Your task to perform on an android device: delete browsing data in the chrome app Image 0: 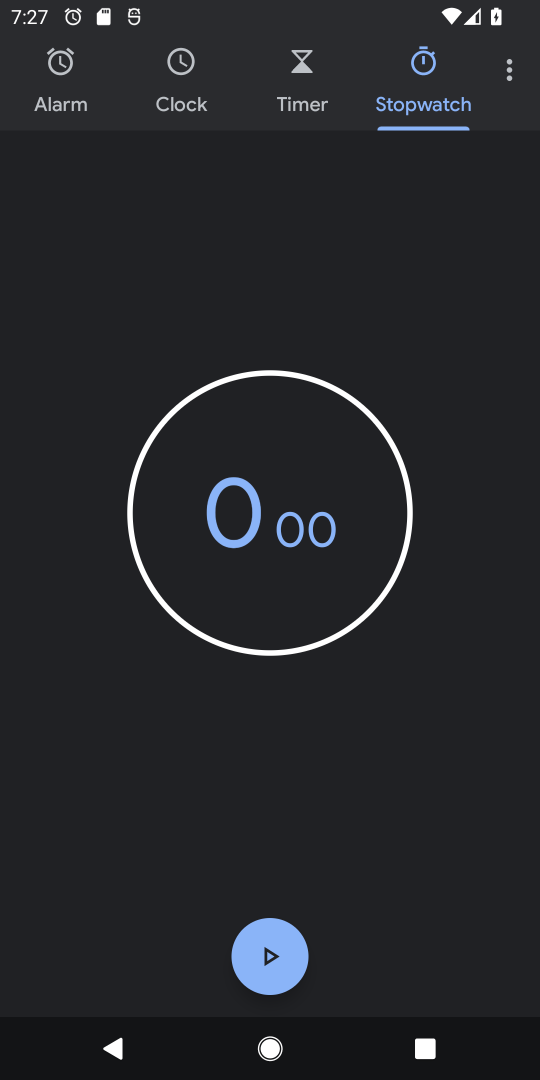
Step 0: press home button
Your task to perform on an android device: delete browsing data in the chrome app Image 1: 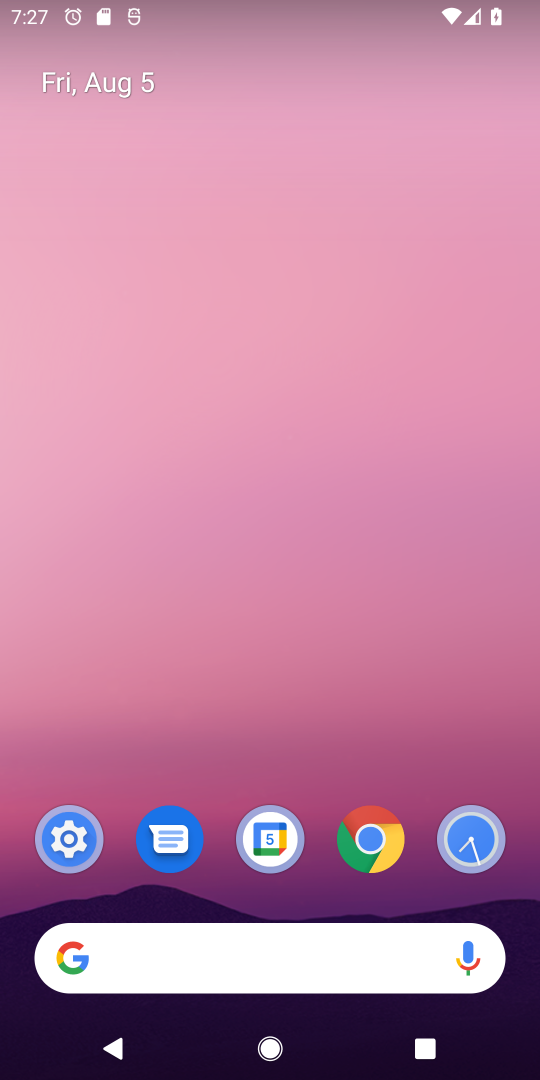
Step 1: click (365, 826)
Your task to perform on an android device: delete browsing data in the chrome app Image 2: 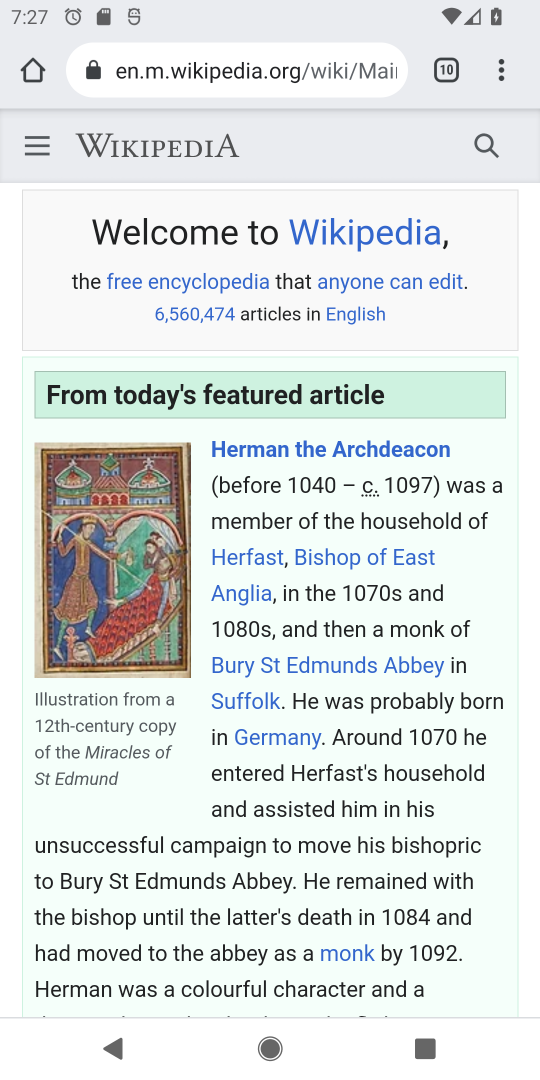
Step 2: click (508, 69)
Your task to perform on an android device: delete browsing data in the chrome app Image 3: 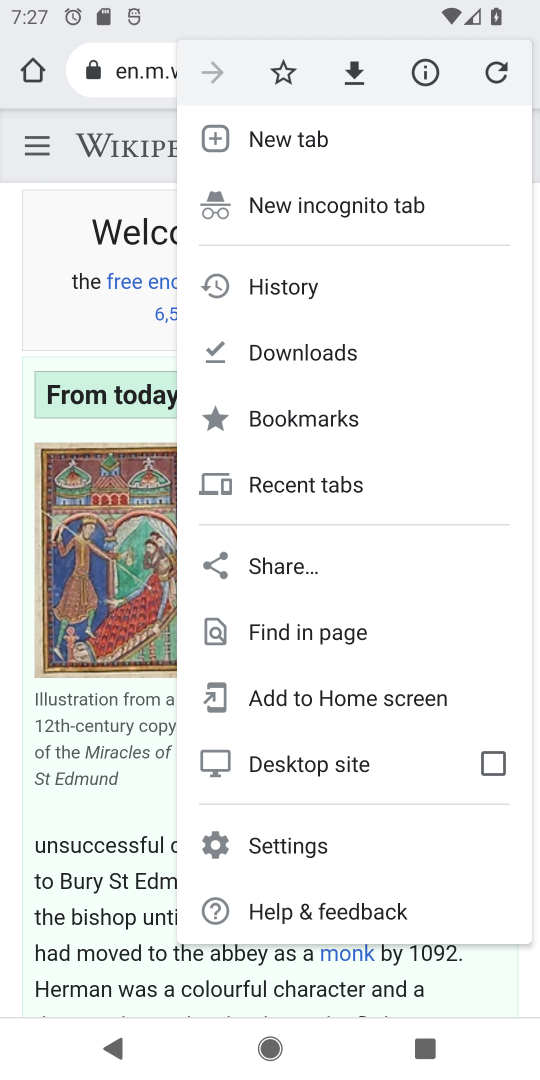
Step 3: click (333, 285)
Your task to perform on an android device: delete browsing data in the chrome app Image 4: 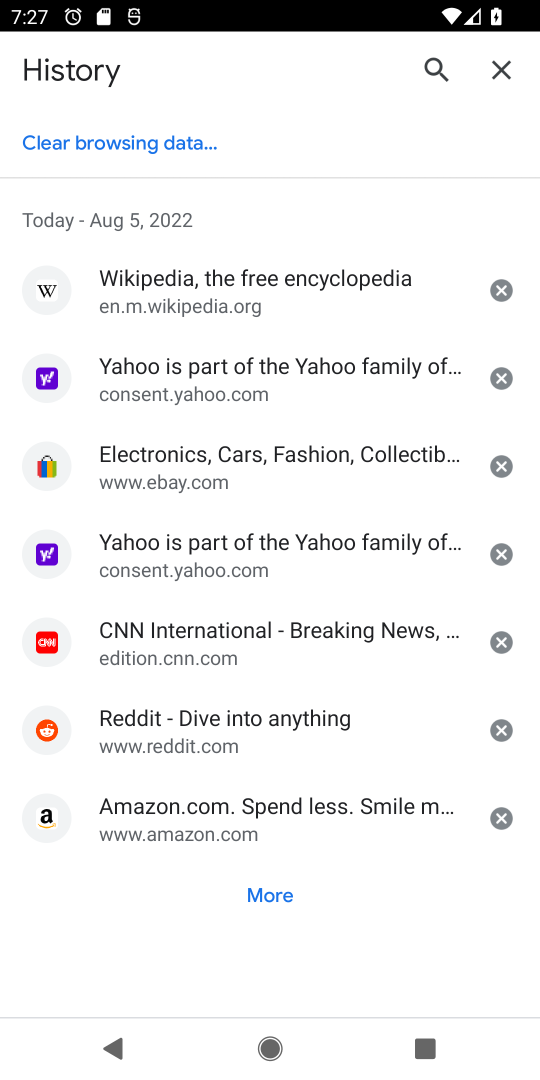
Step 4: click (164, 154)
Your task to perform on an android device: delete browsing data in the chrome app Image 5: 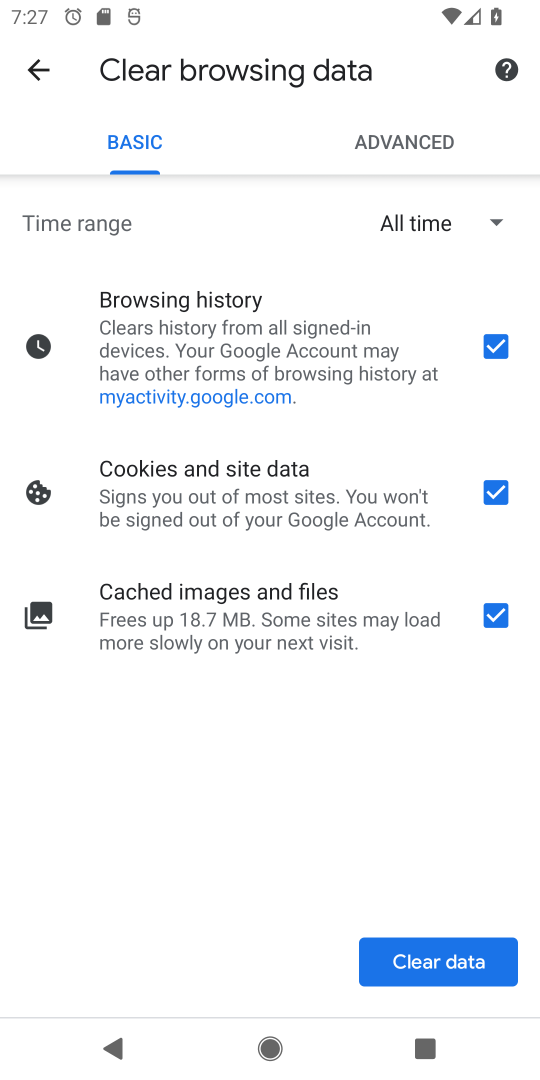
Step 5: click (463, 966)
Your task to perform on an android device: delete browsing data in the chrome app Image 6: 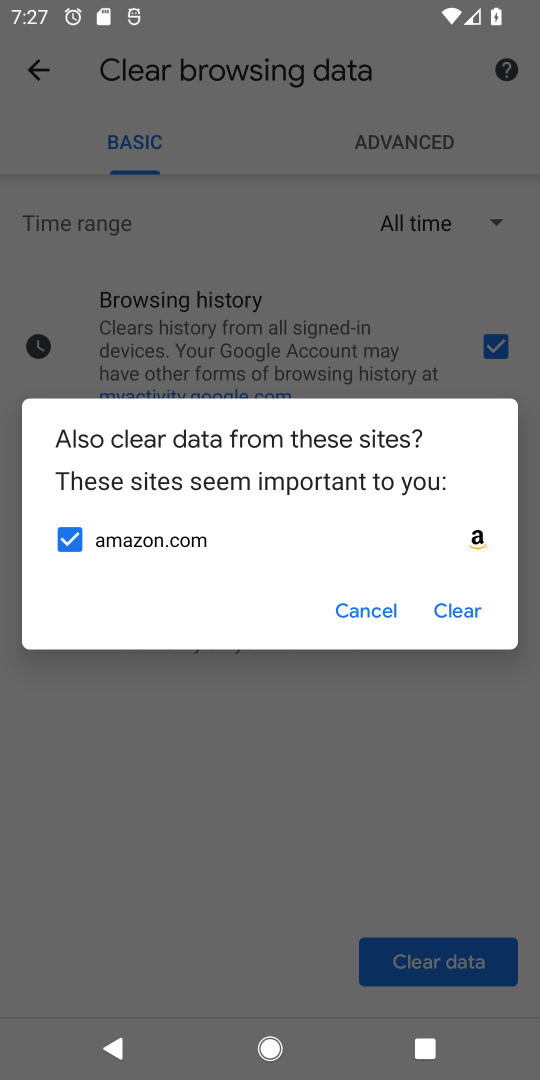
Step 6: click (436, 602)
Your task to perform on an android device: delete browsing data in the chrome app Image 7: 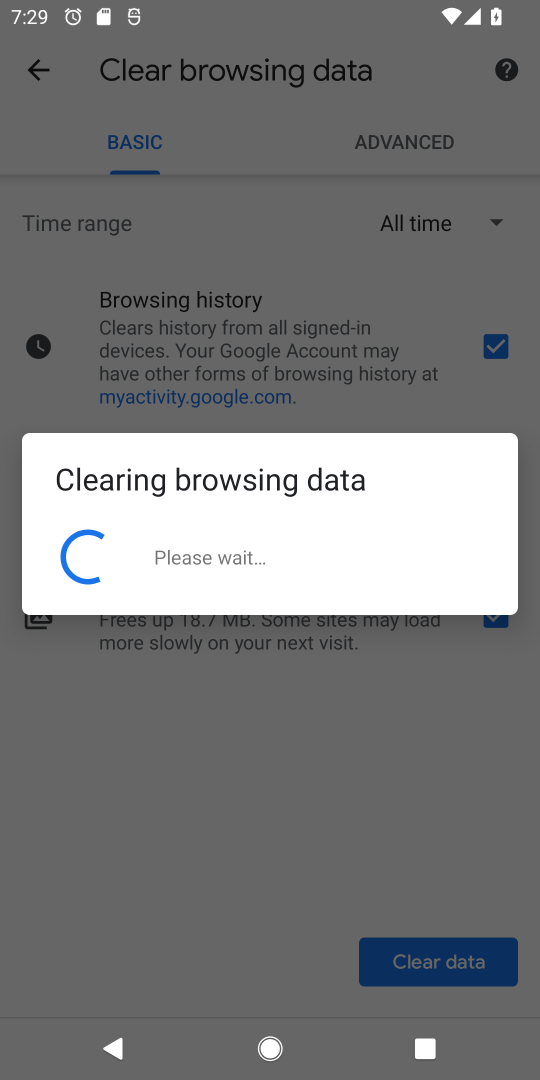
Step 7: task complete